Your task to perform on an android device: Open Google Maps Image 0: 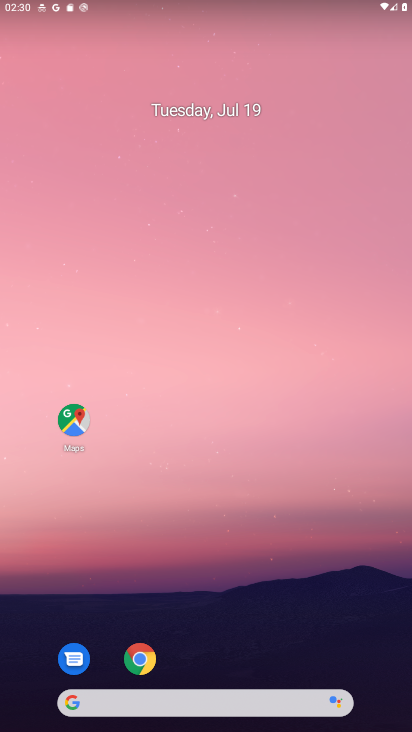
Step 0: drag from (182, 690) to (200, 161)
Your task to perform on an android device: Open Google Maps Image 1: 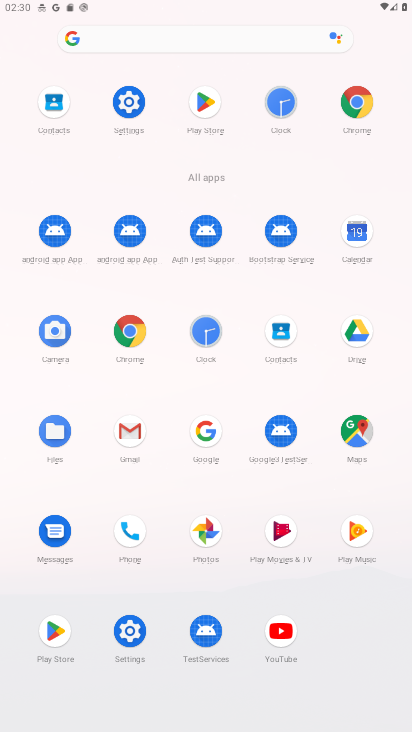
Step 1: click (358, 439)
Your task to perform on an android device: Open Google Maps Image 2: 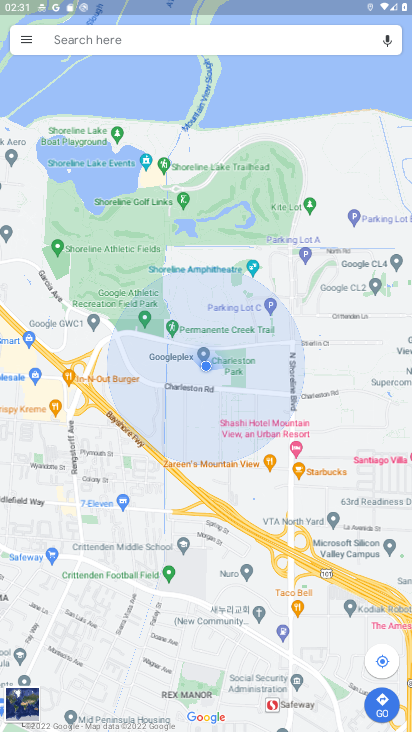
Step 2: task complete